Your task to perform on an android device: Go to Google Image 0: 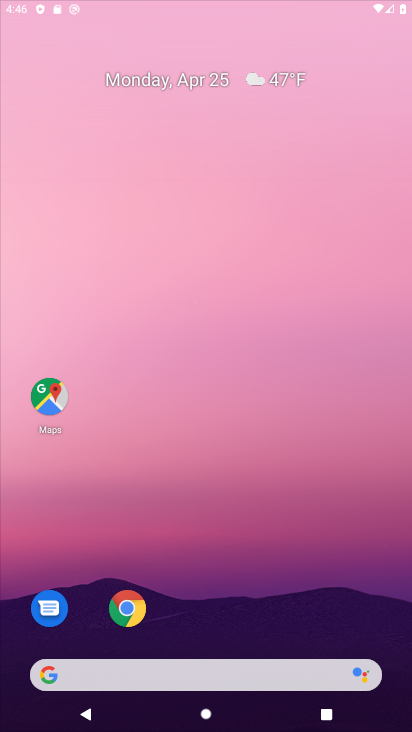
Step 0: click (248, 72)
Your task to perform on an android device: Go to Google Image 1: 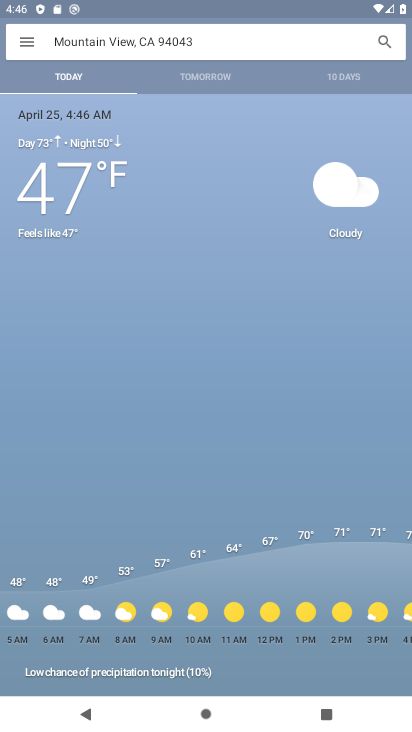
Step 1: press home button
Your task to perform on an android device: Go to Google Image 2: 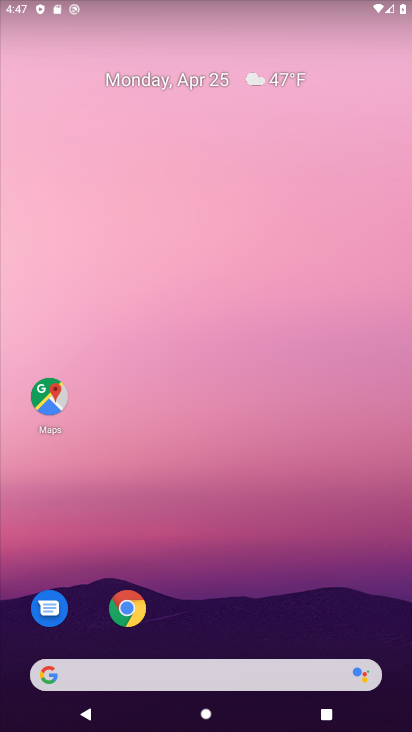
Step 2: click (221, 659)
Your task to perform on an android device: Go to Google Image 3: 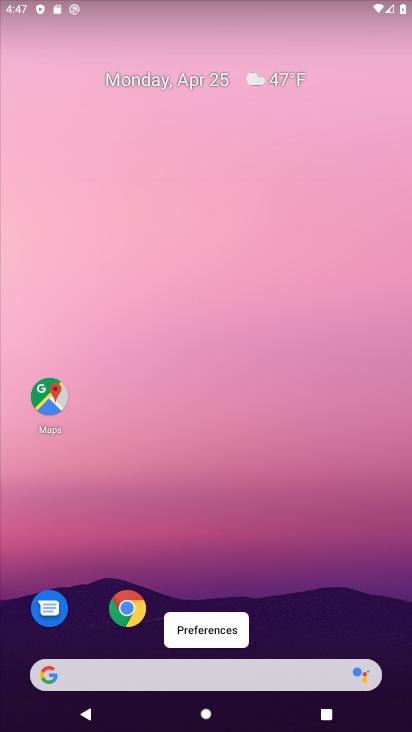
Step 3: click (222, 667)
Your task to perform on an android device: Go to Google Image 4: 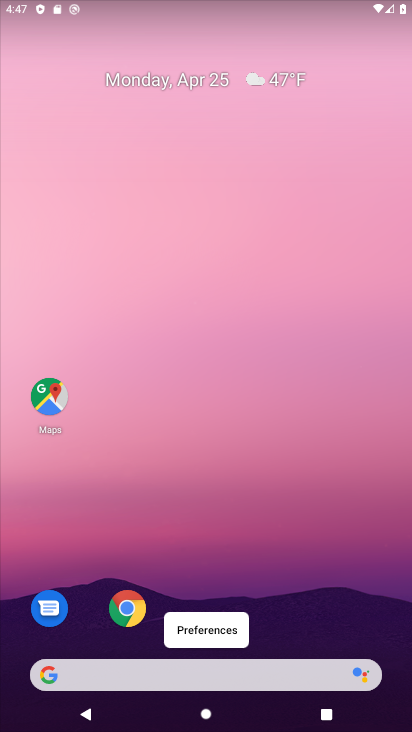
Step 4: click (225, 667)
Your task to perform on an android device: Go to Google Image 5: 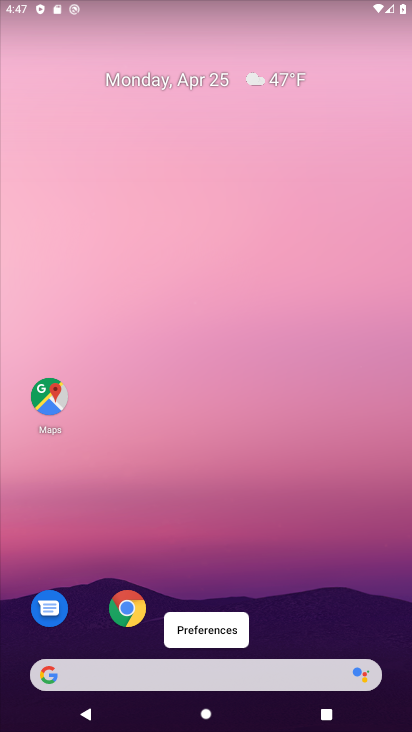
Step 5: click (66, 674)
Your task to perform on an android device: Go to Google Image 6: 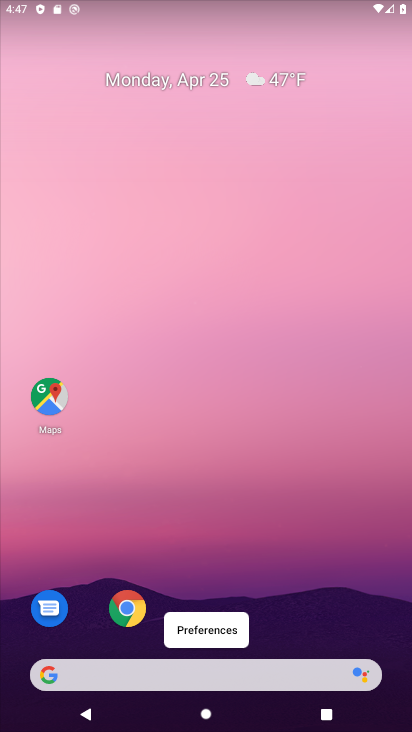
Step 6: click (66, 675)
Your task to perform on an android device: Go to Google Image 7: 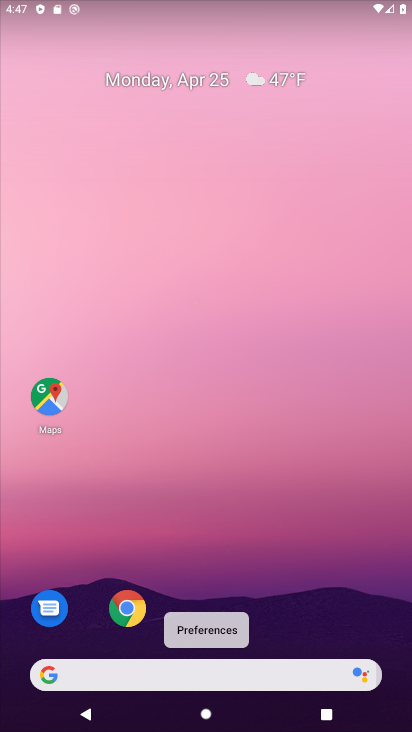
Step 7: click (66, 675)
Your task to perform on an android device: Go to Google Image 8: 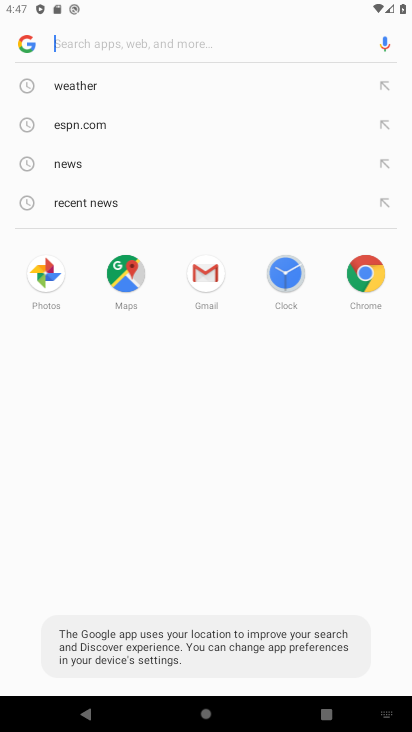
Step 8: task complete